Your task to perform on an android device: snooze an email in the gmail app Image 0: 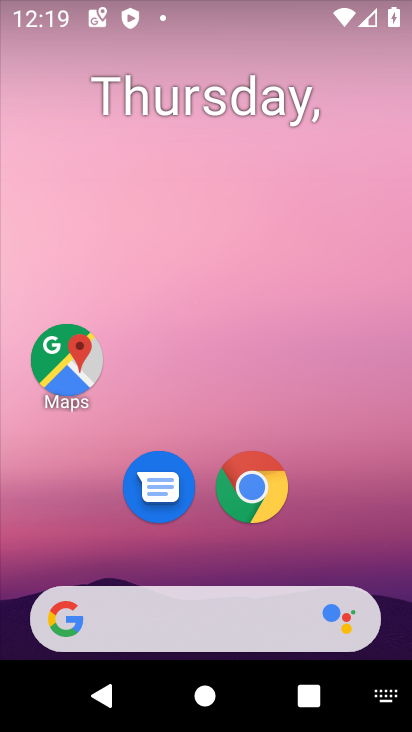
Step 0: drag from (348, 524) to (240, 35)
Your task to perform on an android device: snooze an email in the gmail app Image 1: 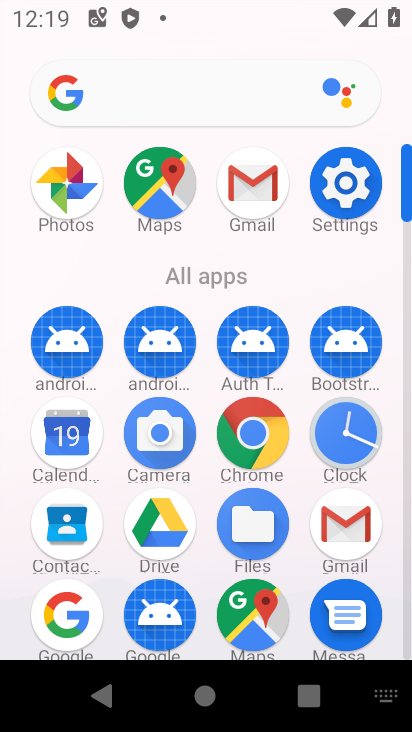
Step 1: click (265, 178)
Your task to perform on an android device: snooze an email in the gmail app Image 2: 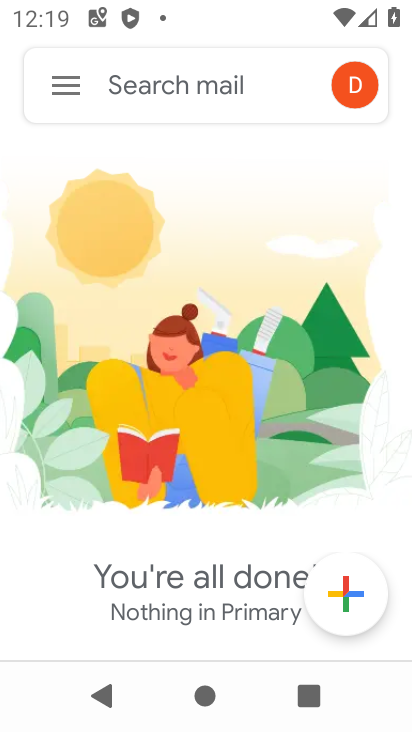
Step 2: click (69, 100)
Your task to perform on an android device: snooze an email in the gmail app Image 3: 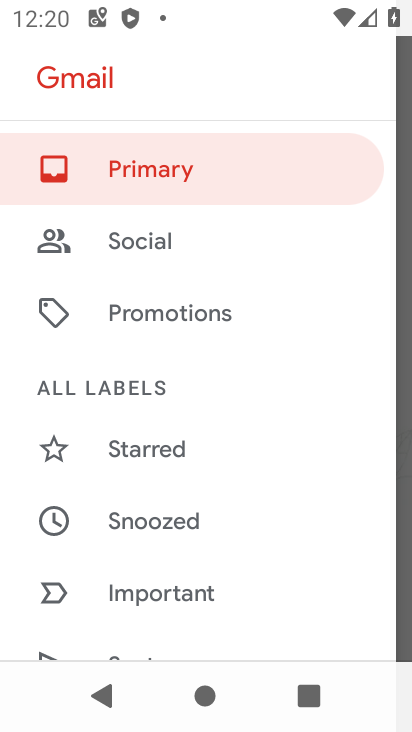
Step 3: drag from (269, 296) to (303, 673)
Your task to perform on an android device: snooze an email in the gmail app Image 4: 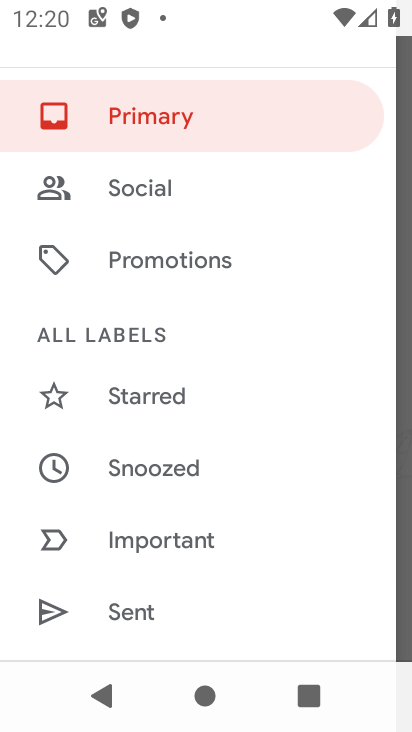
Step 4: drag from (286, 595) to (196, 27)
Your task to perform on an android device: snooze an email in the gmail app Image 5: 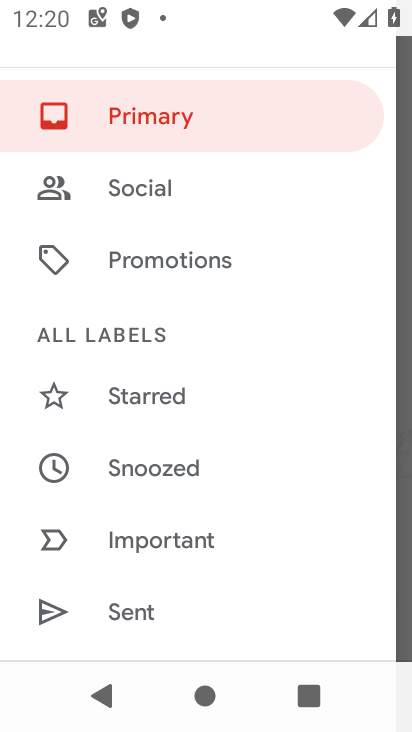
Step 5: drag from (248, 622) to (208, 147)
Your task to perform on an android device: snooze an email in the gmail app Image 6: 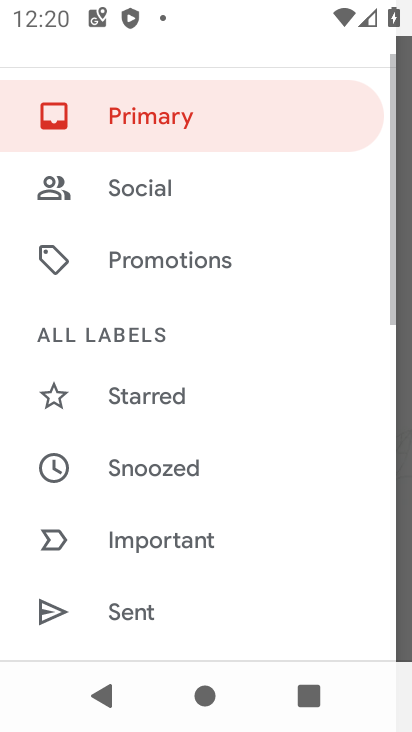
Step 6: drag from (144, 608) to (139, 119)
Your task to perform on an android device: snooze an email in the gmail app Image 7: 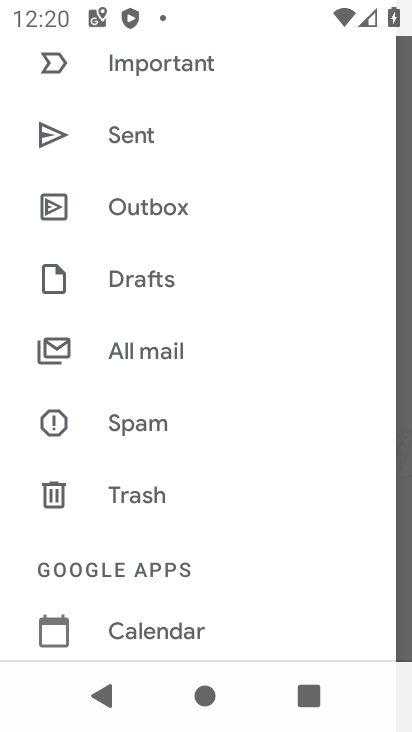
Step 7: click (159, 350)
Your task to perform on an android device: snooze an email in the gmail app Image 8: 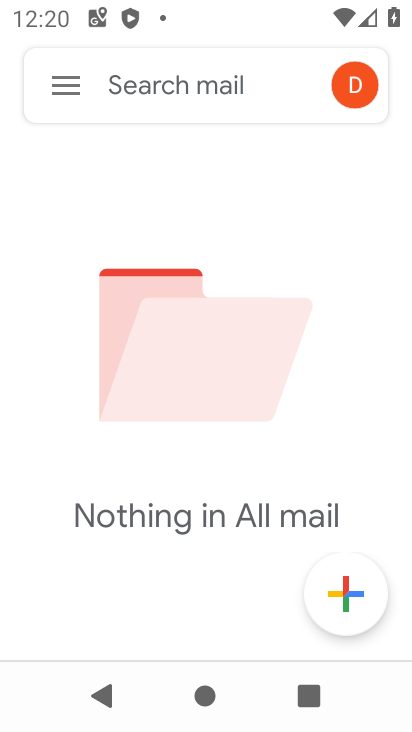
Step 8: task complete